Your task to perform on an android device: install app "Contacts" Image 0: 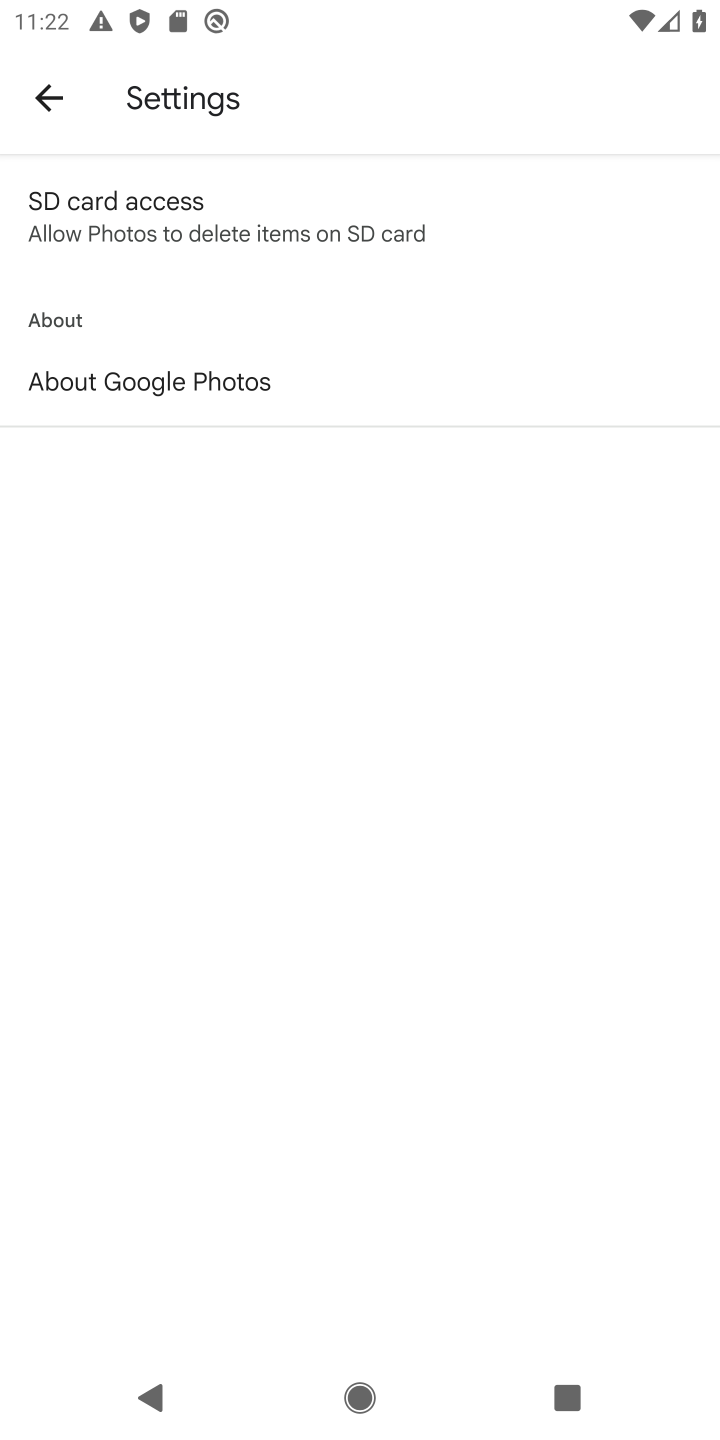
Step 0: press home button
Your task to perform on an android device: install app "Contacts" Image 1: 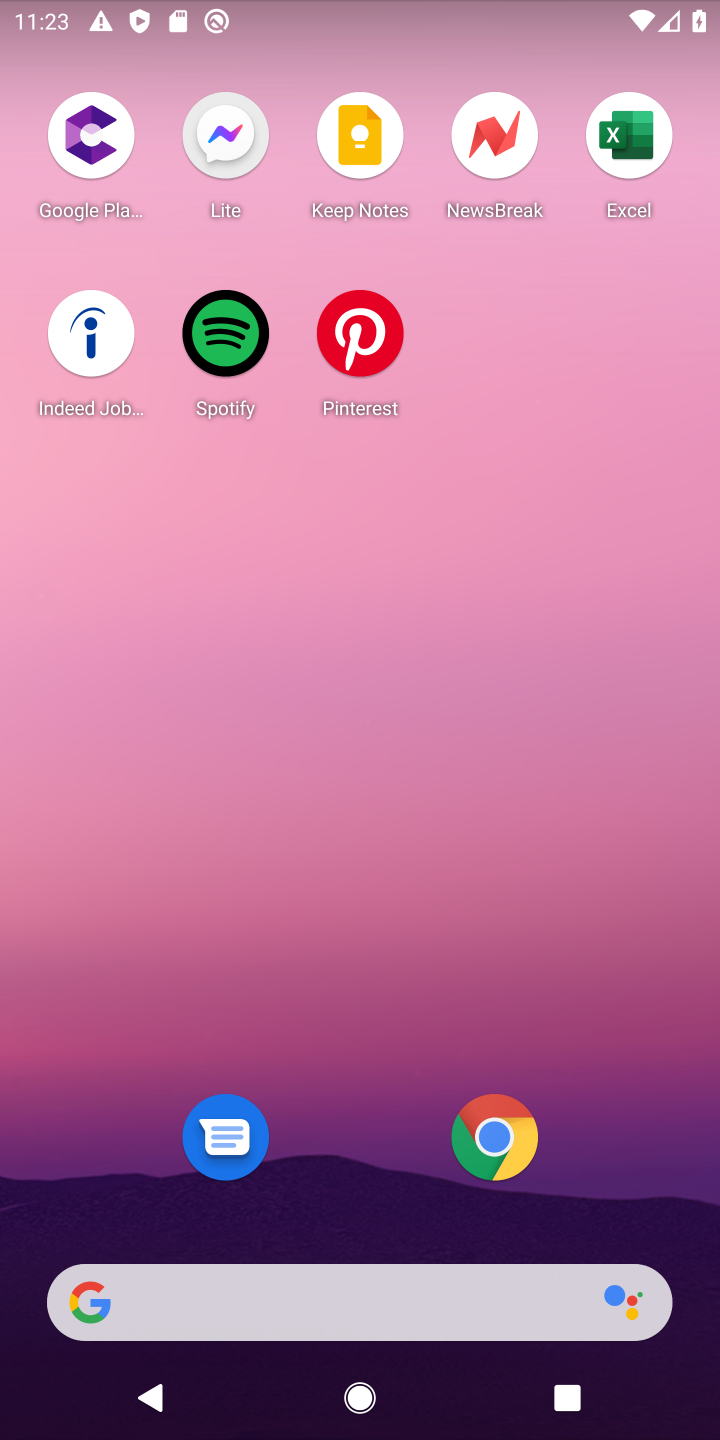
Step 1: drag from (663, 1186) to (422, 13)
Your task to perform on an android device: install app "Contacts" Image 2: 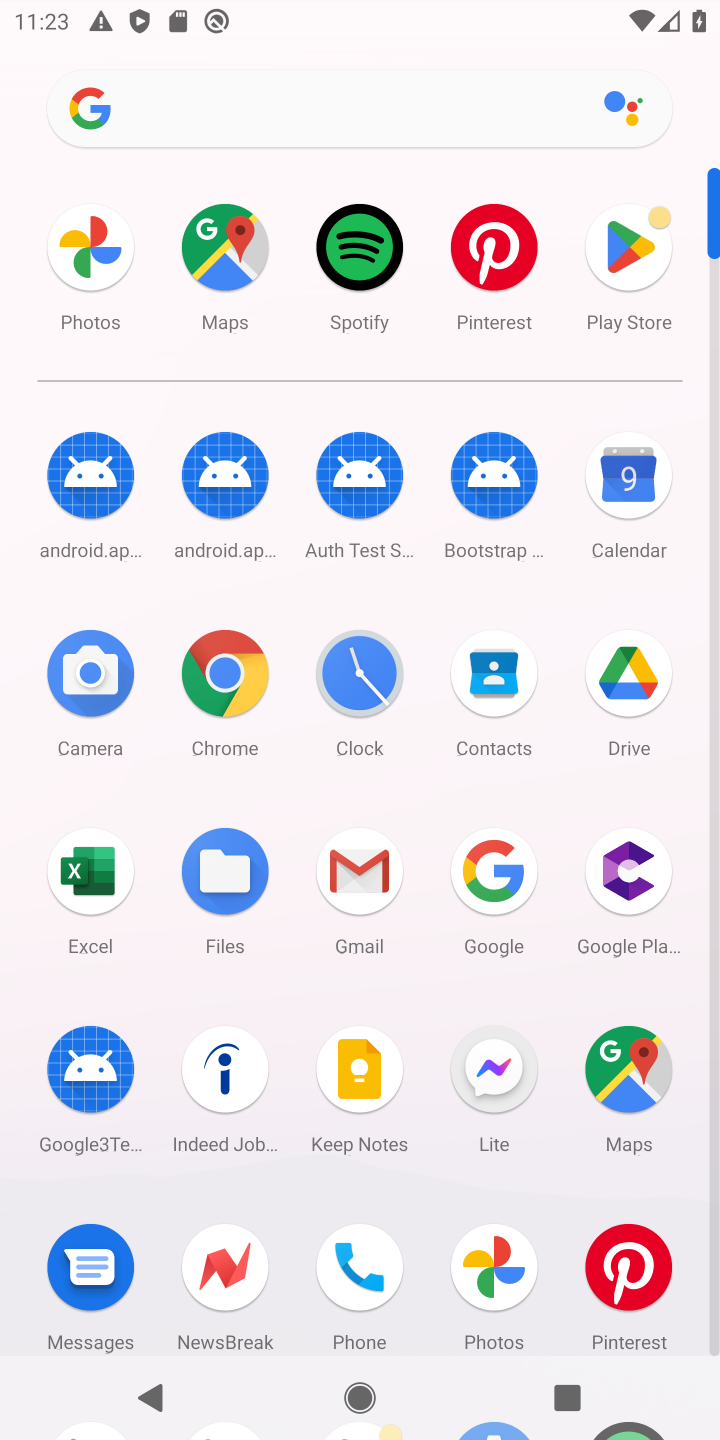
Step 2: click (622, 290)
Your task to perform on an android device: install app "Contacts" Image 3: 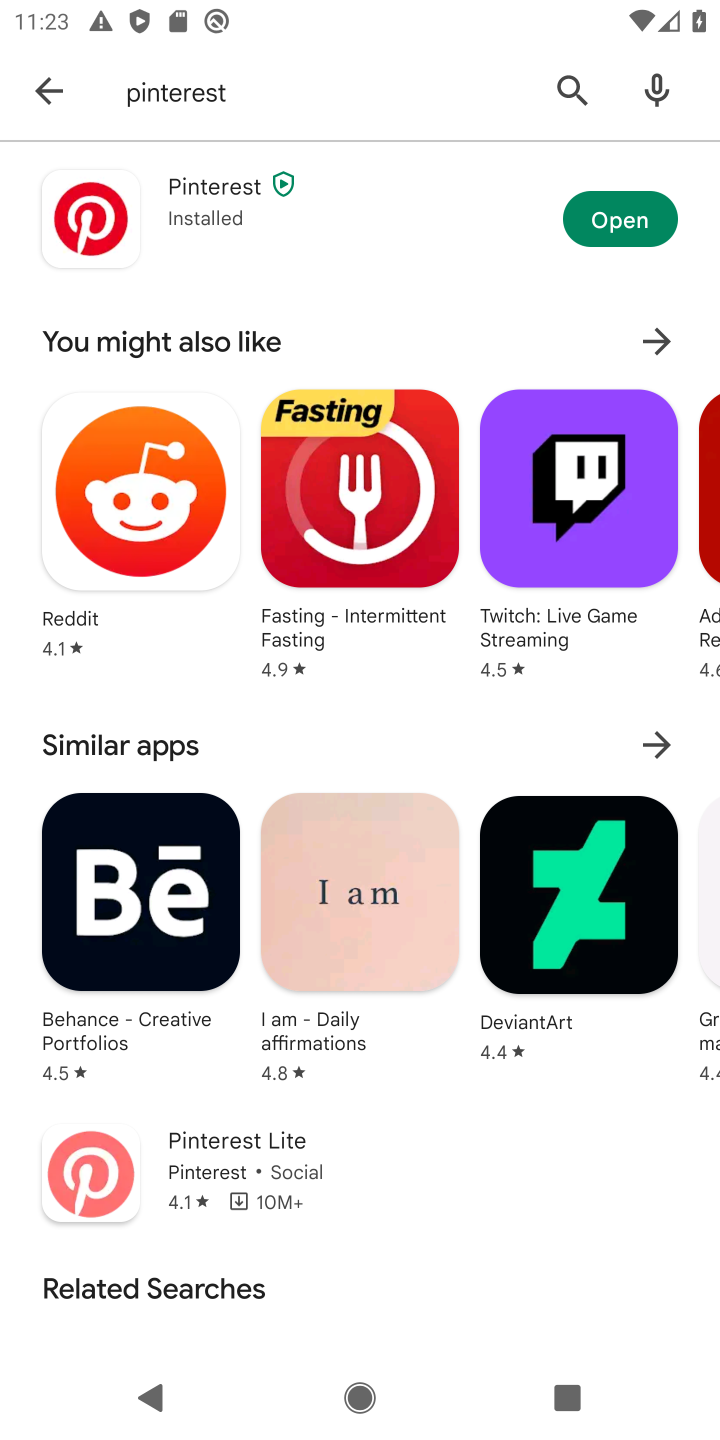
Step 3: press back button
Your task to perform on an android device: install app "Contacts" Image 4: 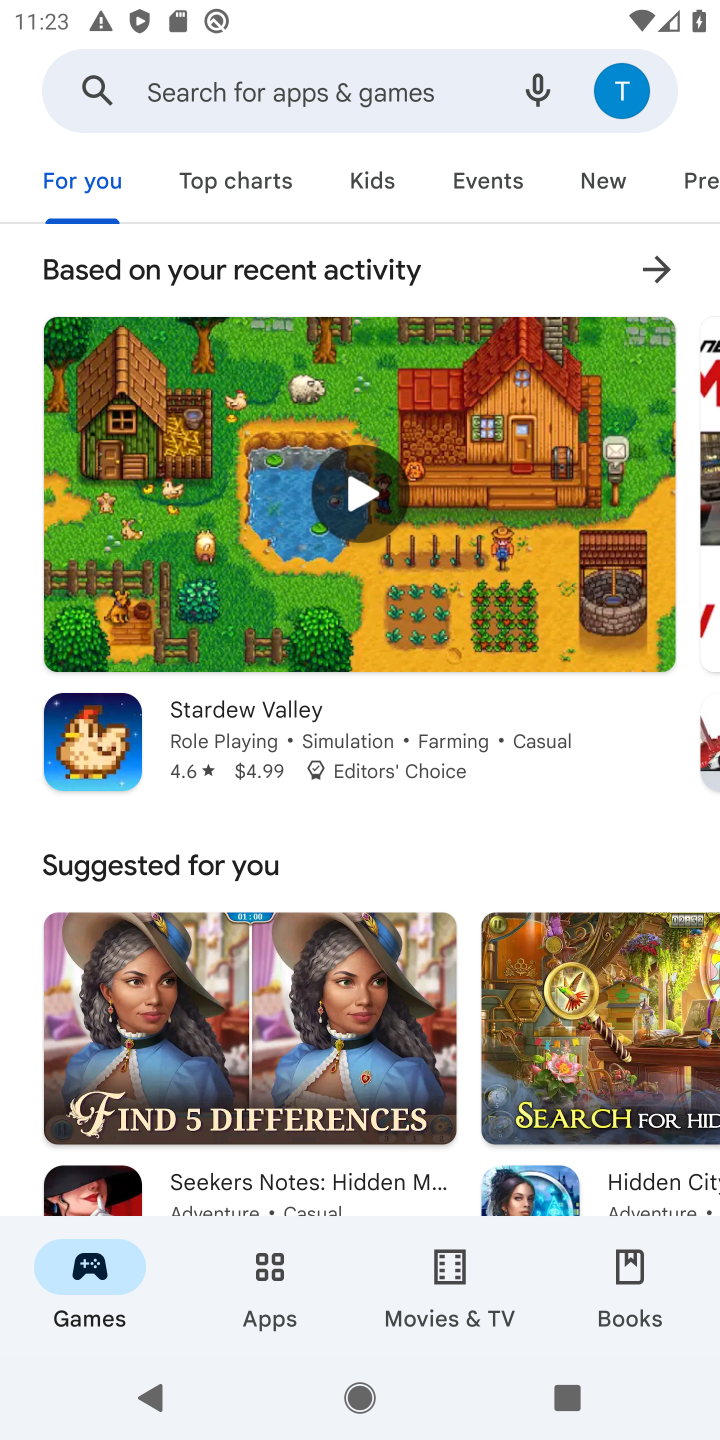
Step 4: click (173, 74)
Your task to perform on an android device: install app "Contacts" Image 5: 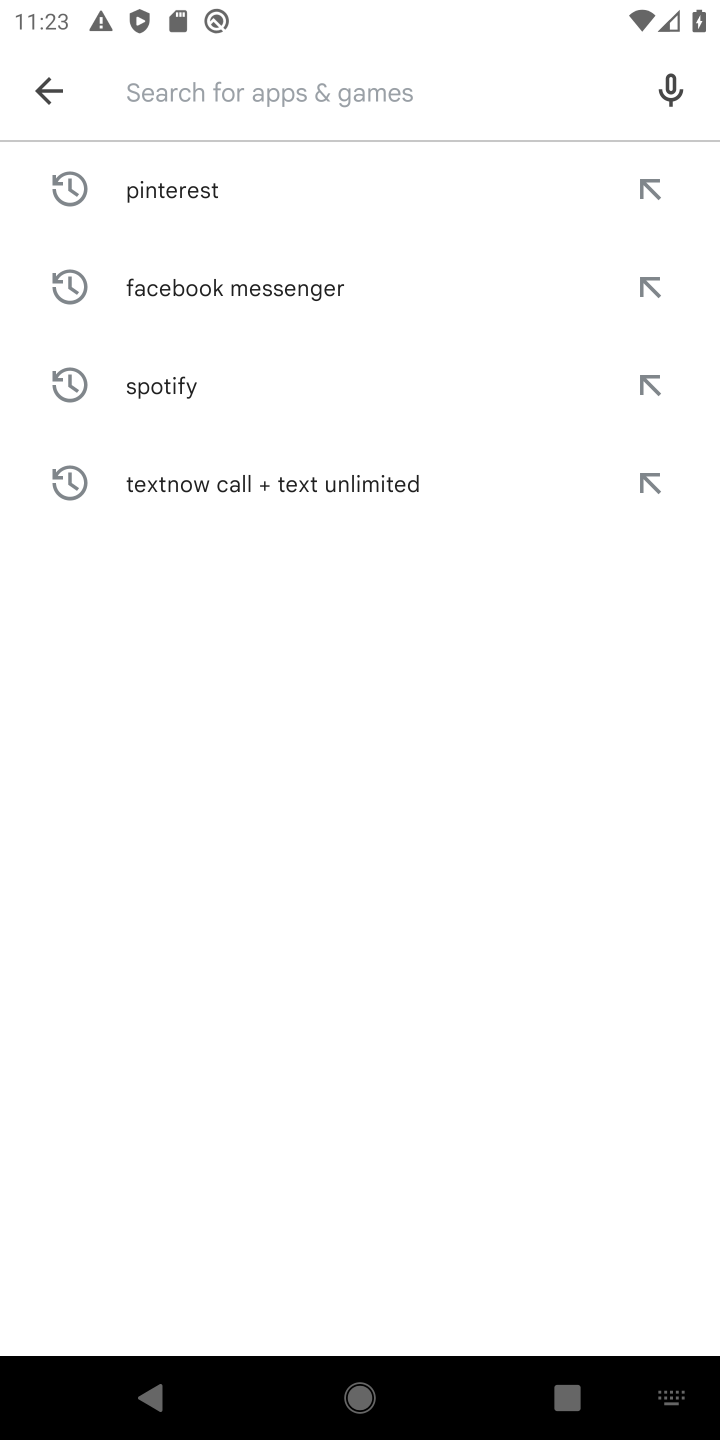
Step 5: type "Contacts"
Your task to perform on an android device: install app "Contacts" Image 6: 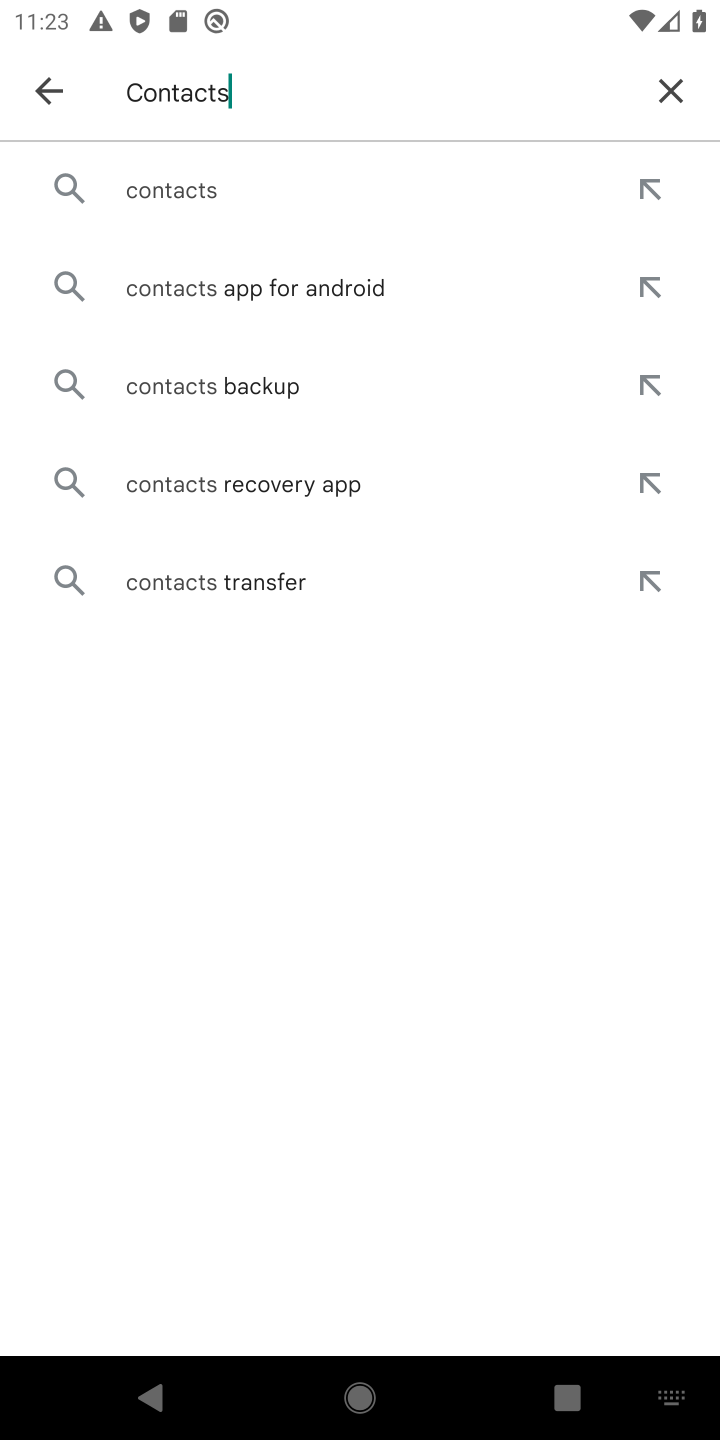
Step 6: click (195, 199)
Your task to perform on an android device: install app "Contacts" Image 7: 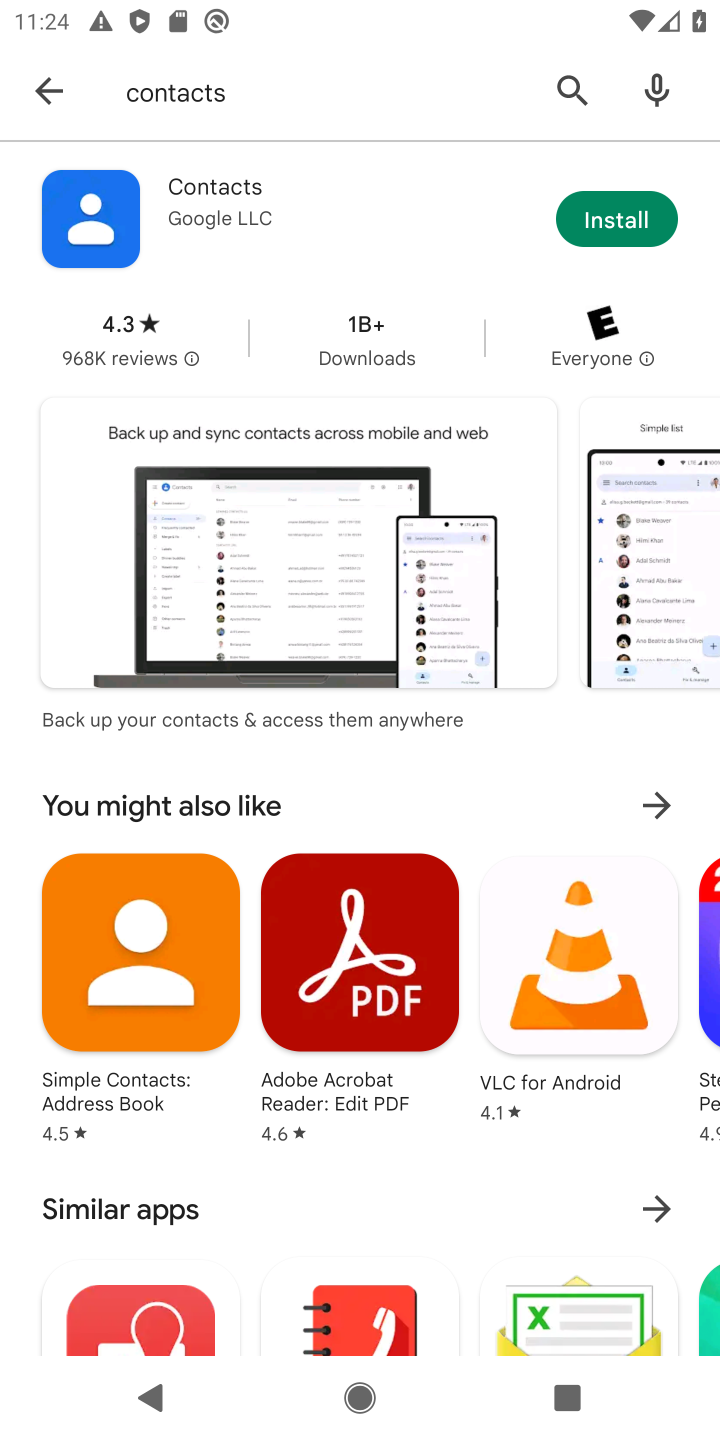
Step 7: click (615, 232)
Your task to perform on an android device: install app "Contacts" Image 8: 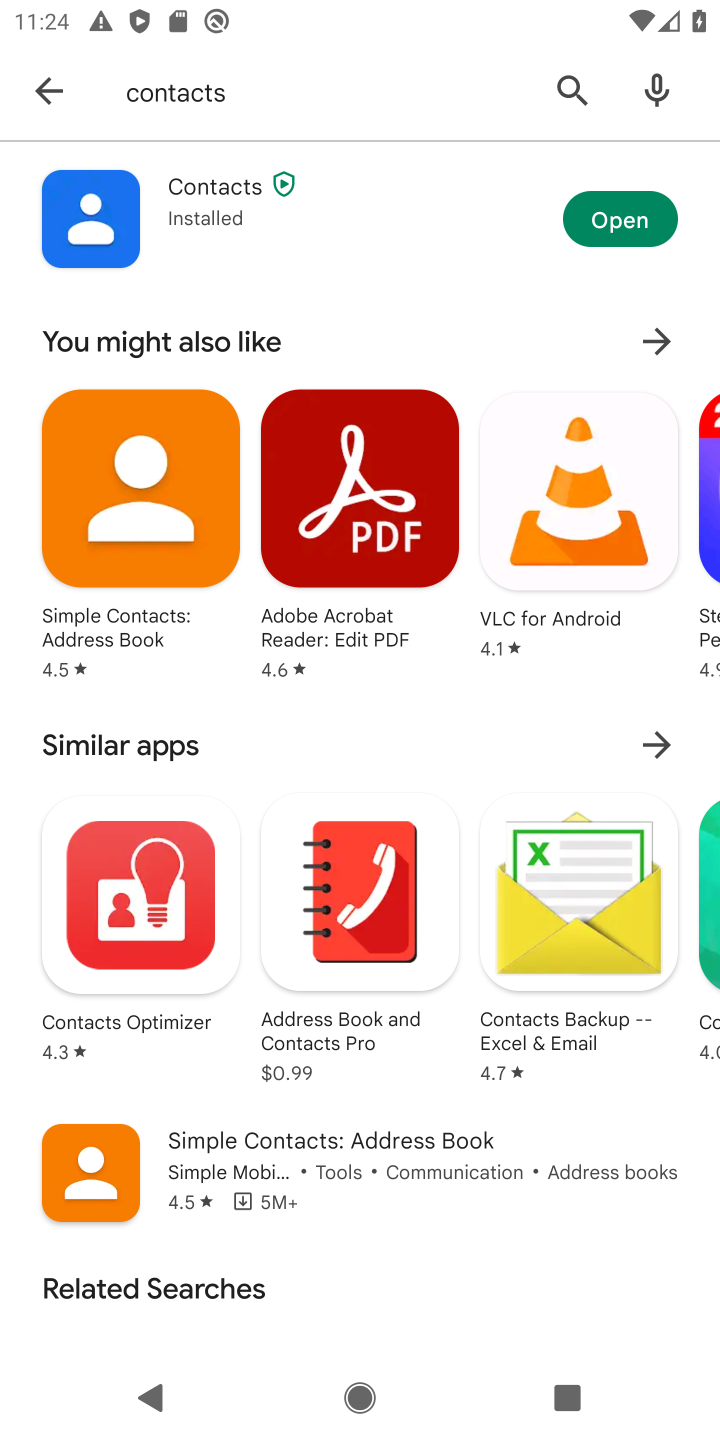
Step 8: task complete